Your task to perform on an android device: Go to internet settings Image 0: 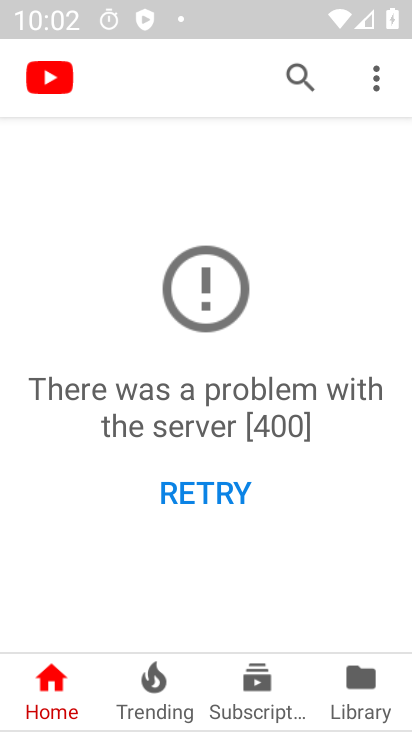
Step 0: press back button
Your task to perform on an android device: Go to internet settings Image 1: 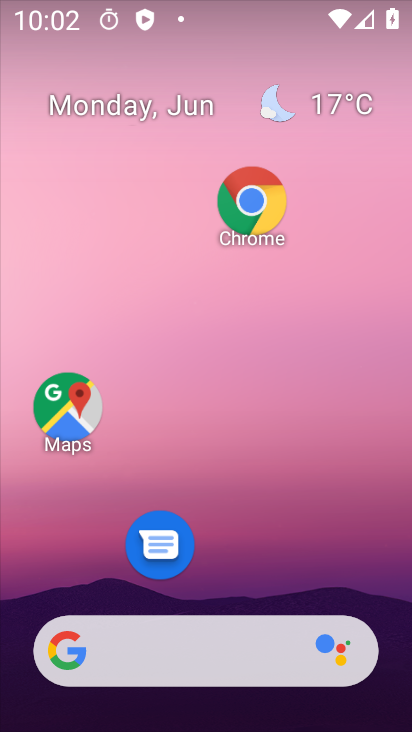
Step 1: drag from (208, 593) to (156, 17)
Your task to perform on an android device: Go to internet settings Image 2: 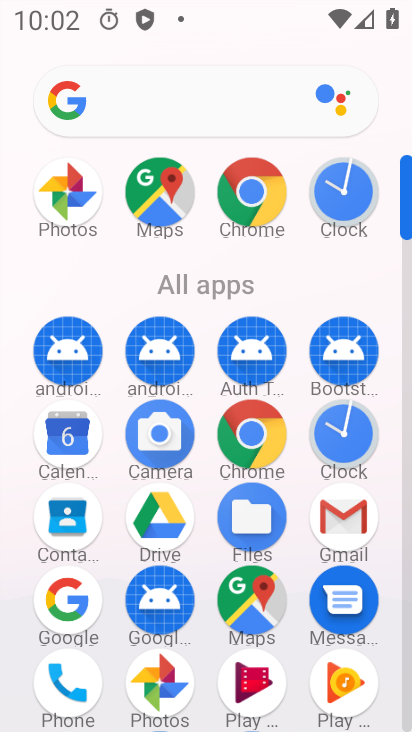
Step 2: drag from (218, 556) to (175, 95)
Your task to perform on an android device: Go to internet settings Image 3: 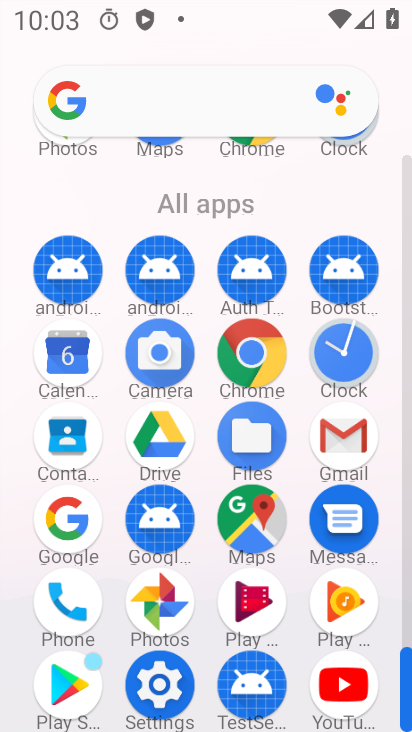
Step 3: click (166, 693)
Your task to perform on an android device: Go to internet settings Image 4: 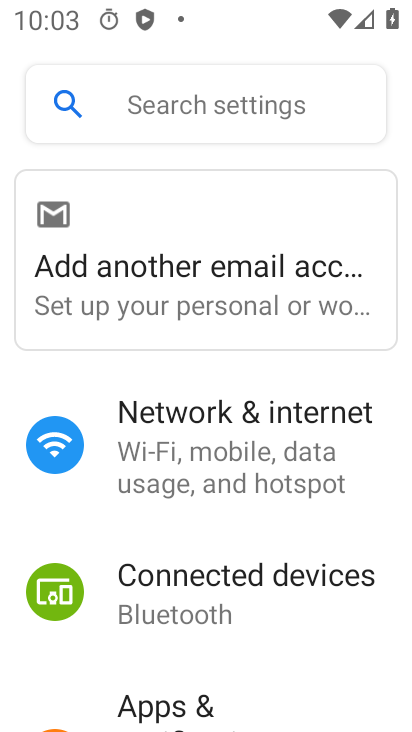
Step 4: click (137, 430)
Your task to perform on an android device: Go to internet settings Image 5: 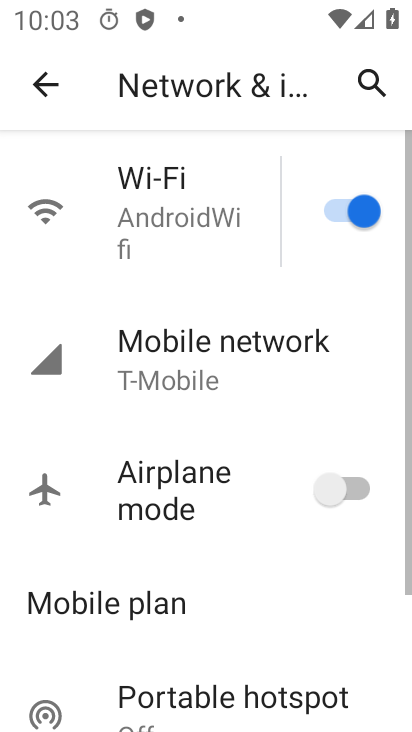
Step 5: click (172, 367)
Your task to perform on an android device: Go to internet settings Image 6: 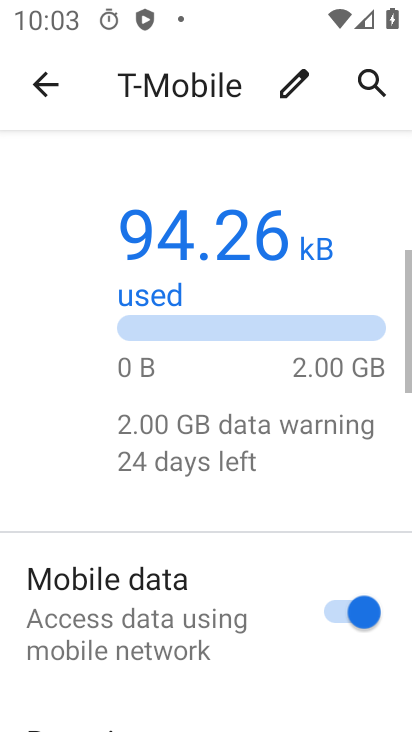
Step 6: task complete